Your task to perform on an android device: What's the weather? Image 0: 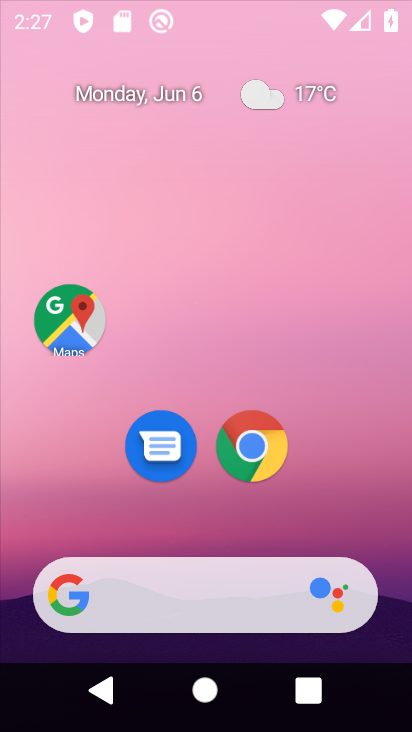
Step 0: click (259, 34)
Your task to perform on an android device: What's the weather? Image 1: 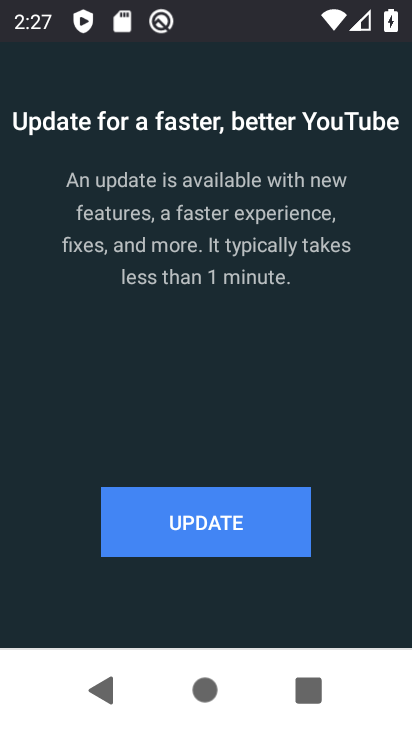
Step 1: press home button
Your task to perform on an android device: What's the weather? Image 2: 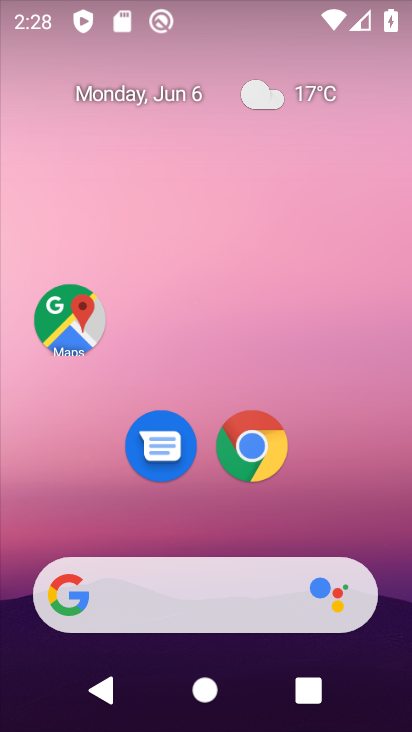
Step 2: click (253, 97)
Your task to perform on an android device: What's the weather? Image 3: 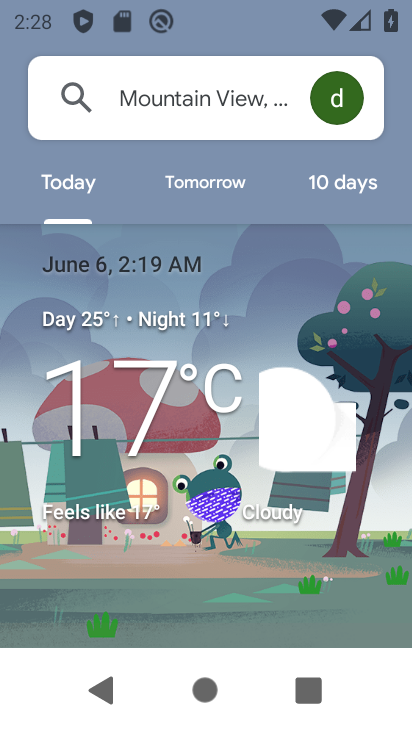
Step 3: task complete